Your task to perform on an android device: turn off javascript in the chrome app Image 0: 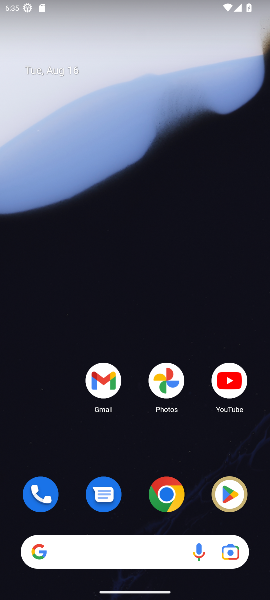
Step 0: drag from (44, 239) to (56, 117)
Your task to perform on an android device: turn off javascript in the chrome app Image 1: 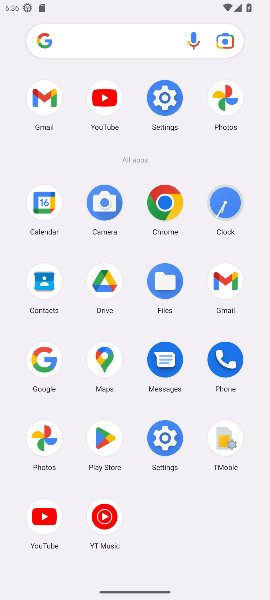
Step 1: click (162, 210)
Your task to perform on an android device: turn off javascript in the chrome app Image 2: 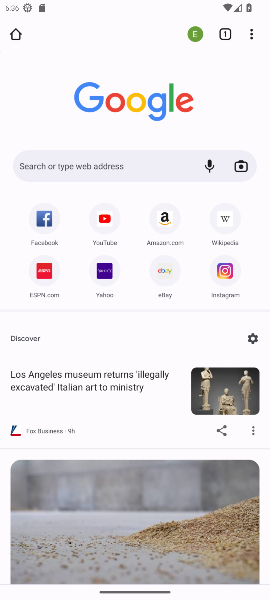
Step 2: click (252, 41)
Your task to perform on an android device: turn off javascript in the chrome app Image 3: 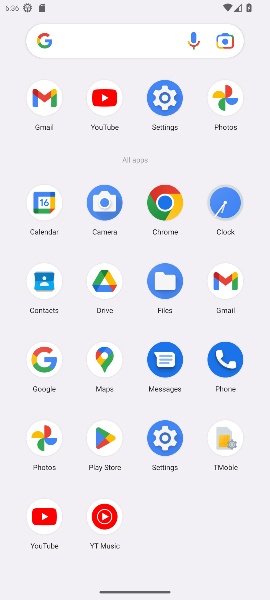
Step 3: task complete